Your task to perform on an android device: Go to battery settings Image 0: 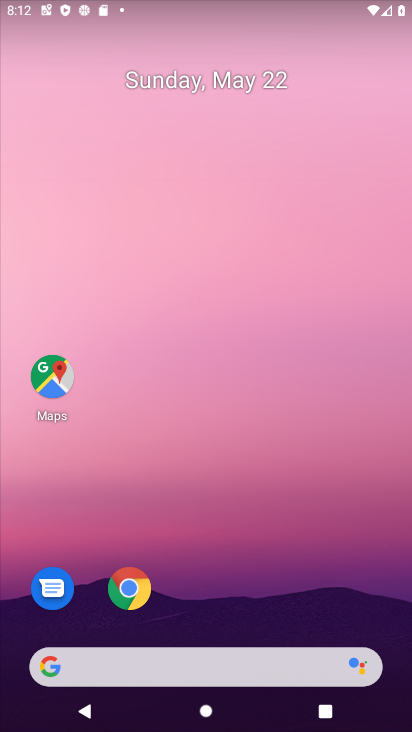
Step 0: drag from (241, 523) to (183, 61)
Your task to perform on an android device: Go to battery settings Image 1: 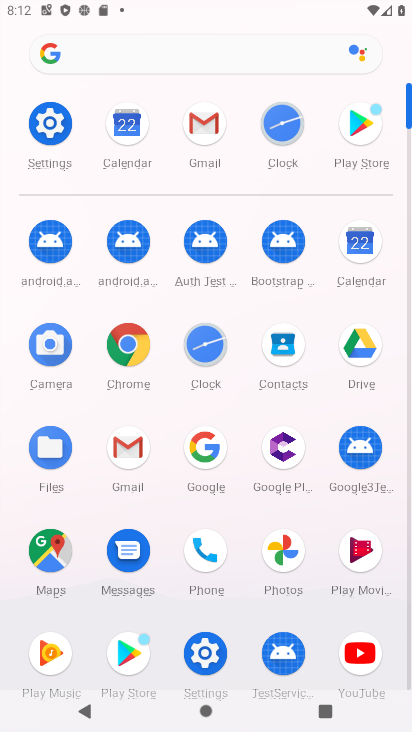
Step 1: click (48, 124)
Your task to perform on an android device: Go to battery settings Image 2: 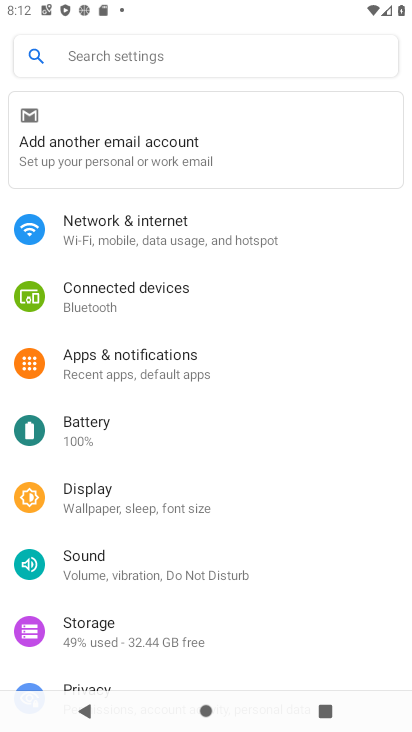
Step 2: click (73, 424)
Your task to perform on an android device: Go to battery settings Image 3: 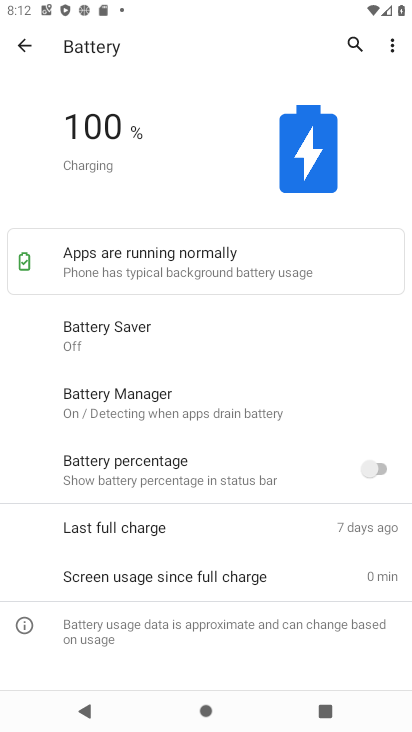
Step 3: task complete